Your task to perform on an android device: change notification settings in the gmail app Image 0: 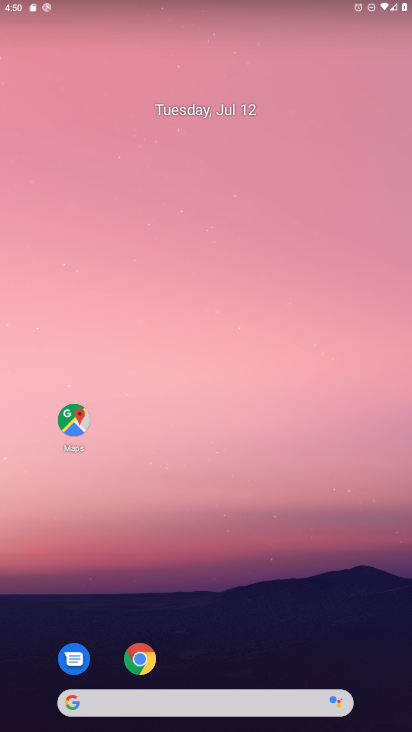
Step 0: drag from (207, 654) to (211, 107)
Your task to perform on an android device: change notification settings in the gmail app Image 1: 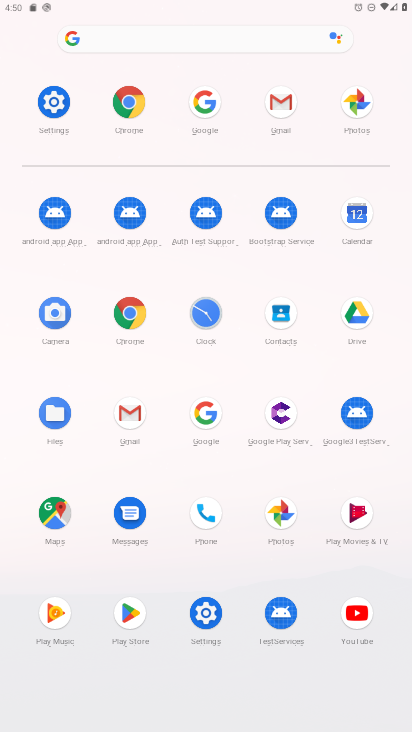
Step 1: click (55, 104)
Your task to perform on an android device: change notification settings in the gmail app Image 2: 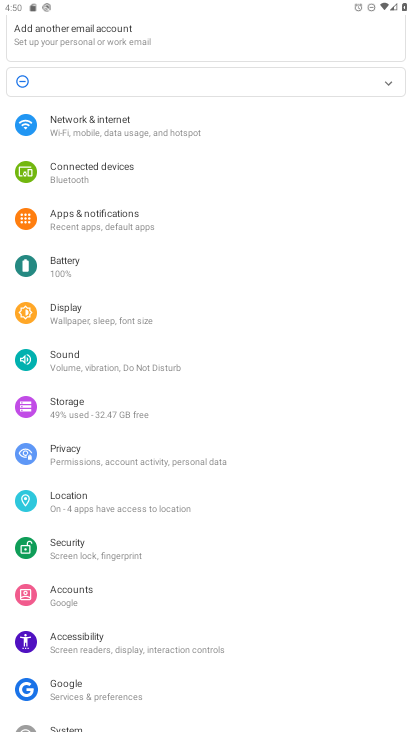
Step 2: press back button
Your task to perform on an android device: change notification settings in the gmail app Image 3: 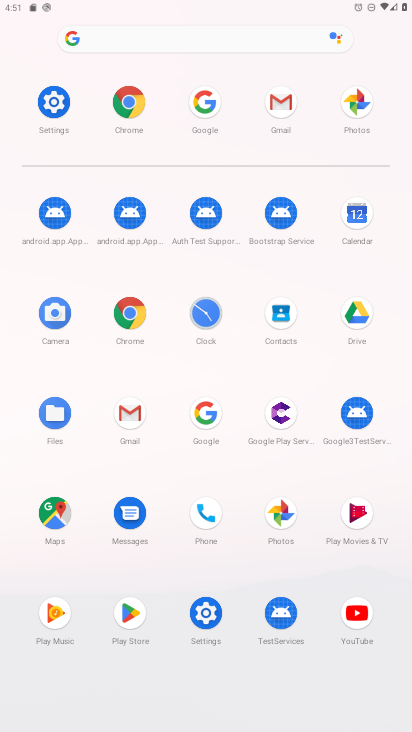
Step 3: click (126, 416)
Your task to perform on an android device: change notification settings in the gmail app Image 4: 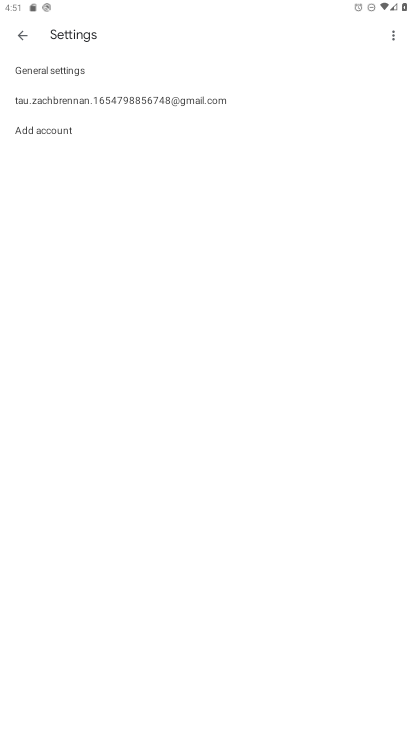
Step 4: click (134, 96)
Your task to perform on an android device: change notification settings in the gmail app Image 5: 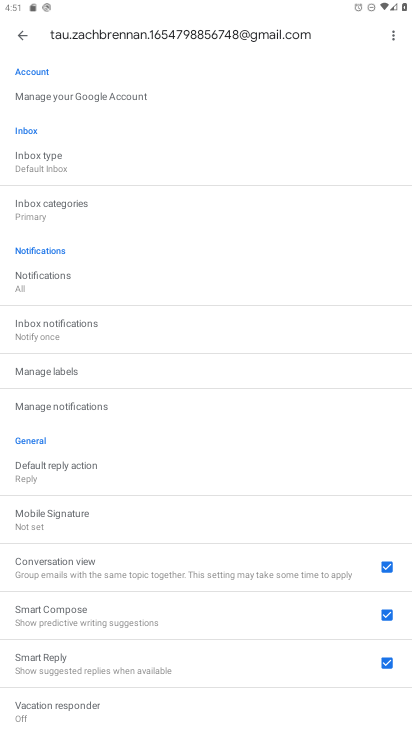
Step 5: click (52, 282)
Your task to perform on an android device: change notification settings in the gmail app Image 6: 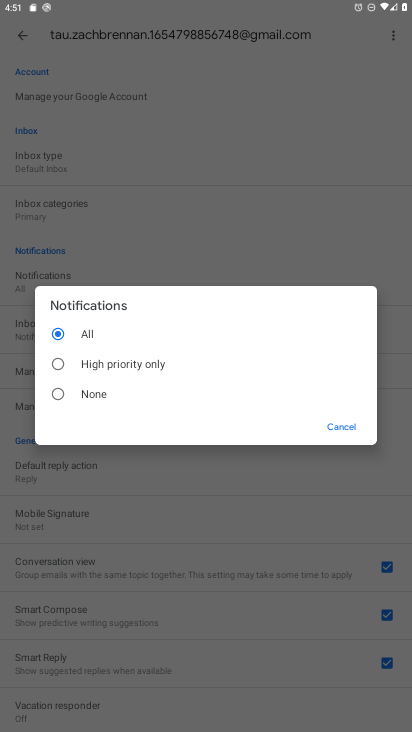
Step 6: click (57, 403)
Your task to perform on an android device: change notification settings in the gmail app Image 7: 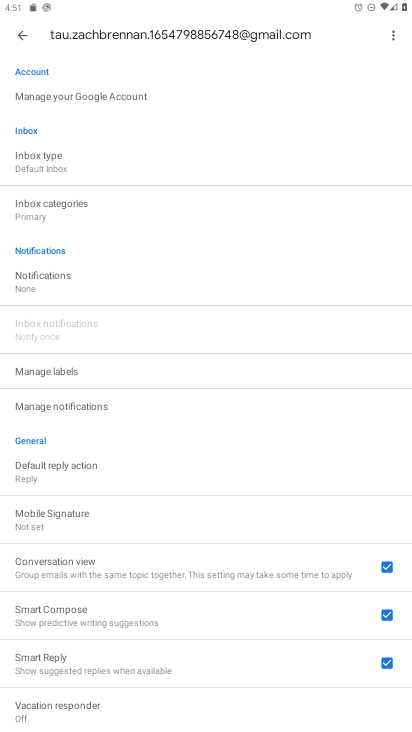
Step 7: task complete